Your task to perform on an android device: open a bookmark in the chrome app Image 0: 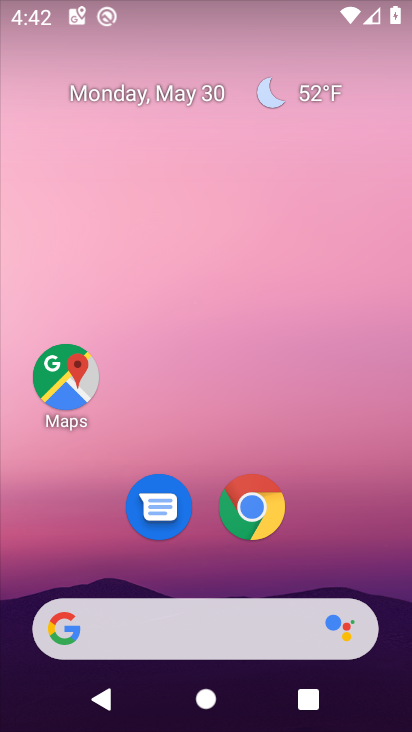
Step 0: click (229, 490)
Your task to perform on an android device: open a bookmark in the chrome app Image 1: 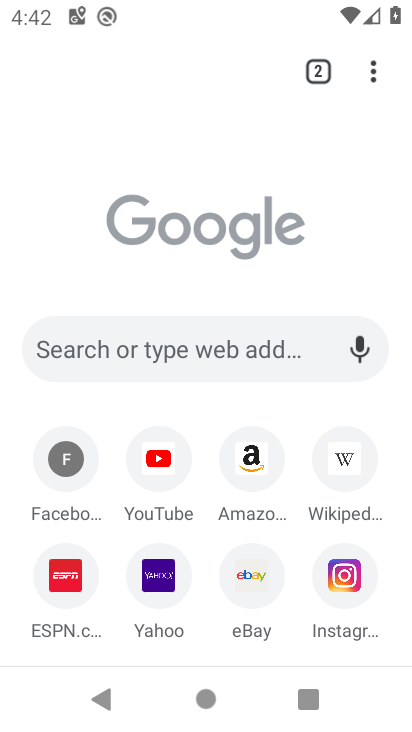
Step 1: task complete